Your task to perform on an android device: stop showing notifications on the lock screen Image 0: 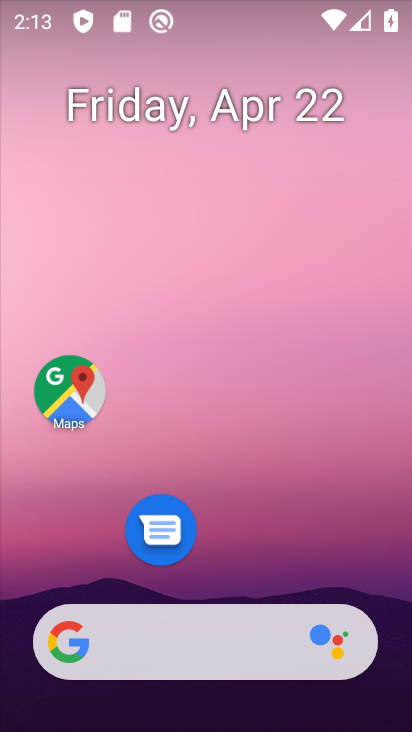
Step 0: drag from (252, 540) to (138, 28)
Your task to perform on an android device: stop showing notifications on the lock screen Image 1: 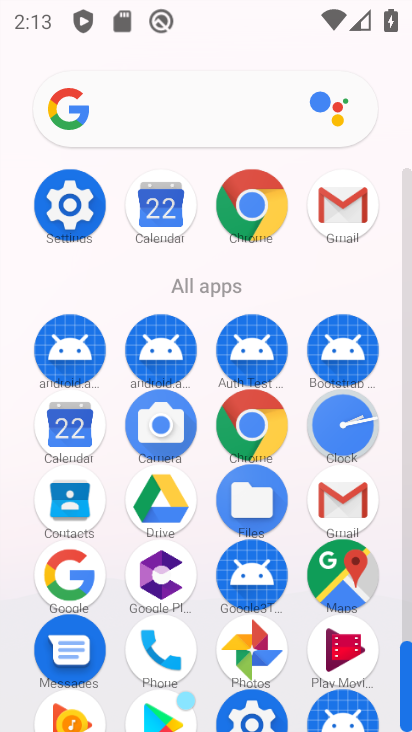
Step 1: click (63, 219)
Your task to perform on an android device: stop showing notifications on the lock screen Image 2: 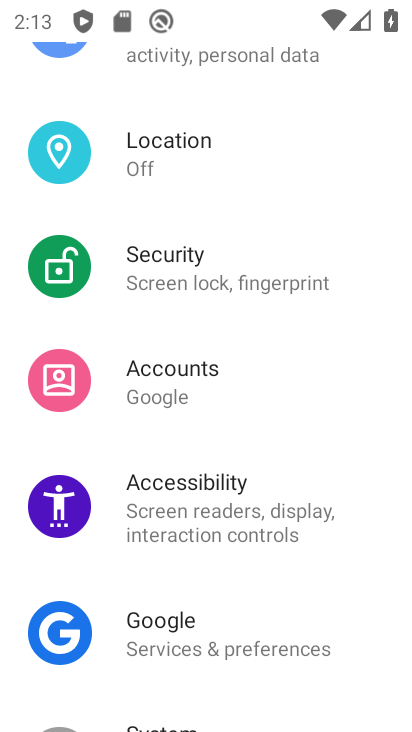
Step 2: drag from (238, 162) to (313, 650)
Your task to perform on an android device: stop showing notifications on the lock screen Image 3: 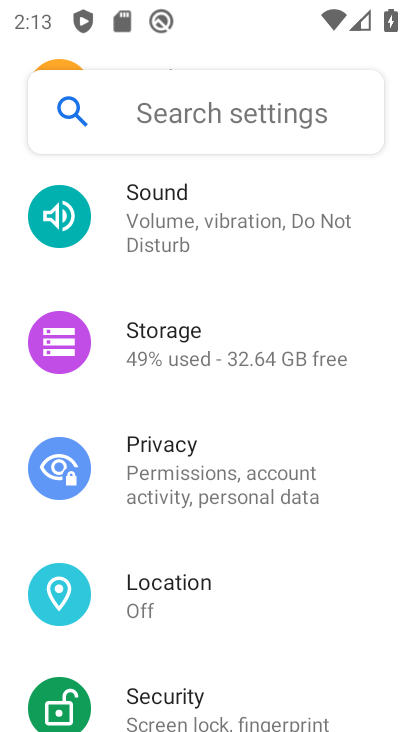
Step 3: drag from (215, 256) to (282, 709)
Your task to perform on an android device: stop showing notifications on the lock screen Image 4: 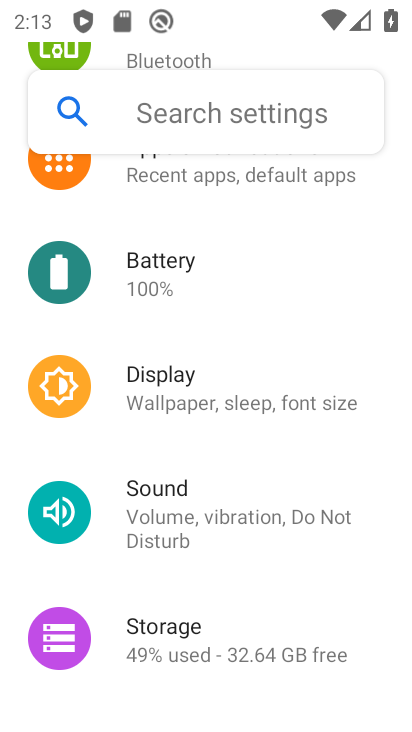
Step 4: drag from (223, 229) to (260, 703)
Your task to perform on an android device: stop showing notifications on the lock screen Image 5: 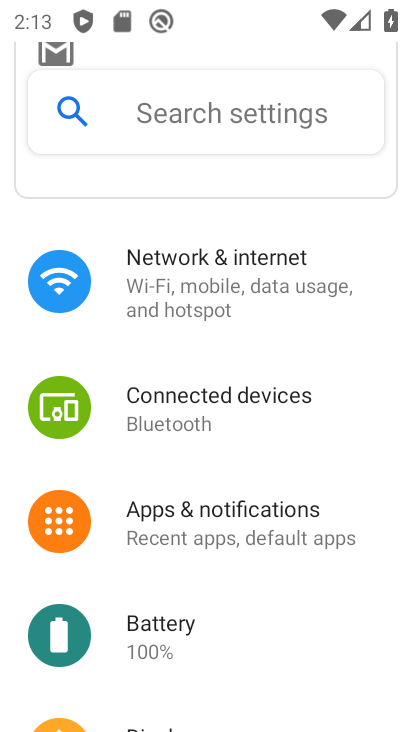
Step 5: click (227, 520)
Your task to perform on an android device: stop showing notifications on the lock screen Image 6: 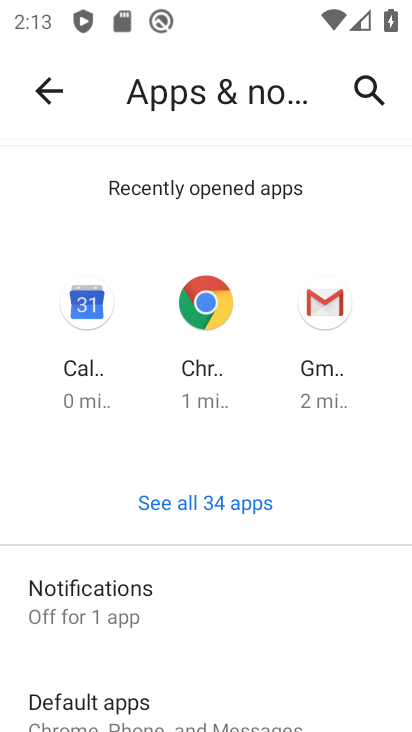
Step 6: drag from (143, 633) to (113, 361)
Your task to perform on an android device: stop showing notifications on the lock screen Image 7: 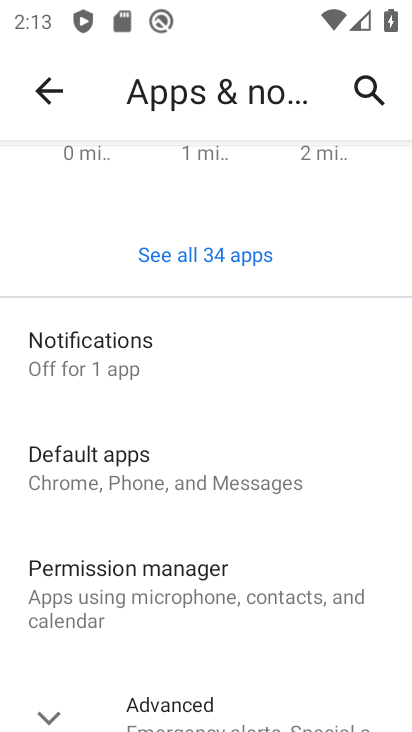
Step 7: click (102, 338)
Your task to perform on an android device: stop showing notifications on the lock screen Image 8: 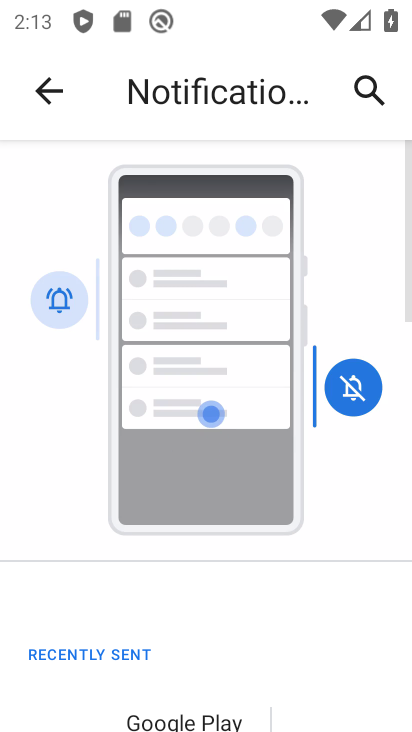
Step 8: drag from (195, 613) to (125, 272)
Your task to perform on an android device: stop showing notifications on the lock screen Image 9: 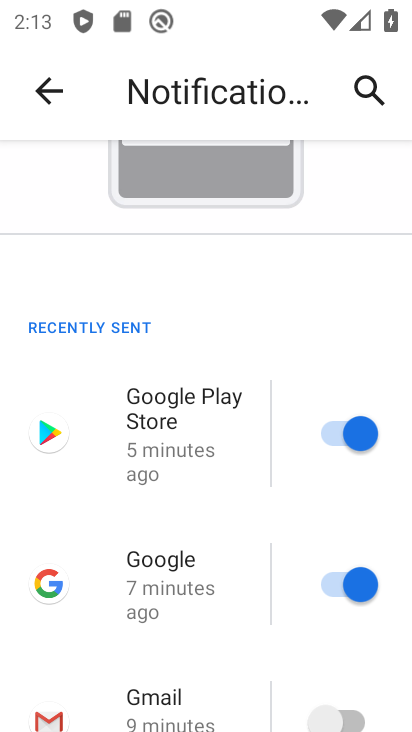
Step 9: drag from (207, 601) to (199, 279)
Your task to perform on an android device: stop showing notifications on the lock screen Image 10: 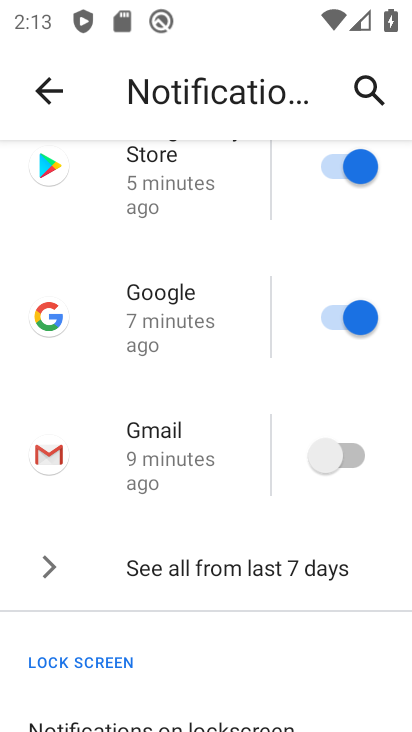
Step 10: drag from (210, 617) to (180, 341)
Your task to perform on an android device: stop showing notifications on the lock screen Image 11: 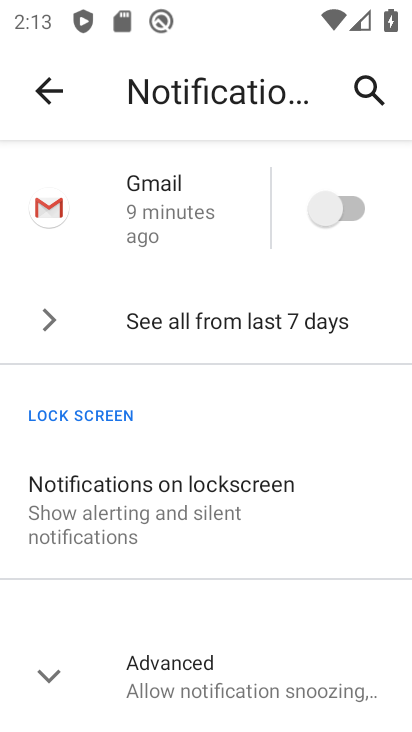
Step 11: click (162, 489)
Your task to perform on an android device: stop showing notifications on the lock screen Image 12: 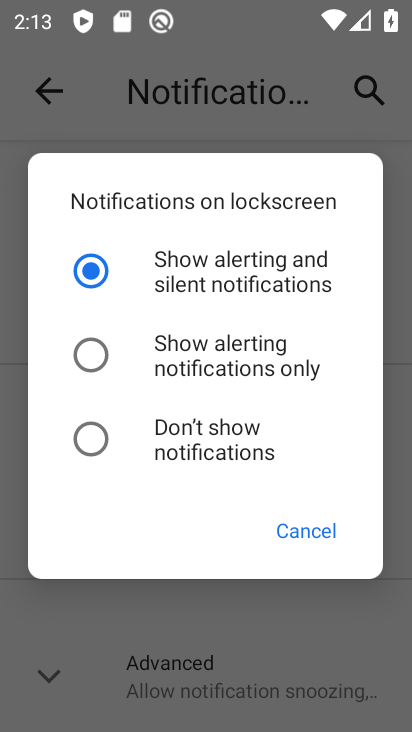
Step 12: click (76, 441)
Your task to perform on an android device: stop showing notifications on the lock screen Image 13: 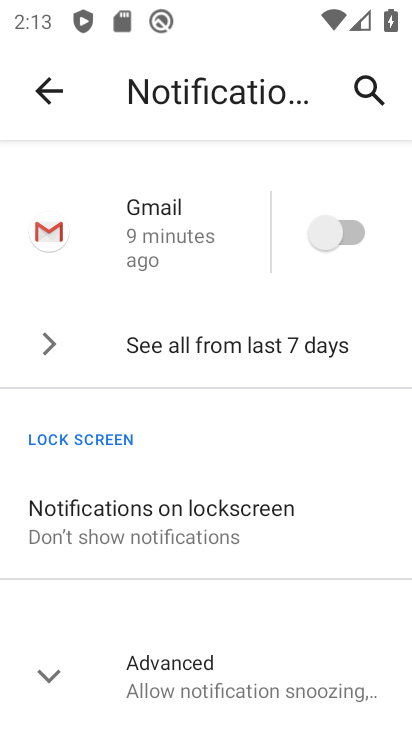
Step 13: task complete